Your task to perform on an android device: empty trash in google photos Image 0: 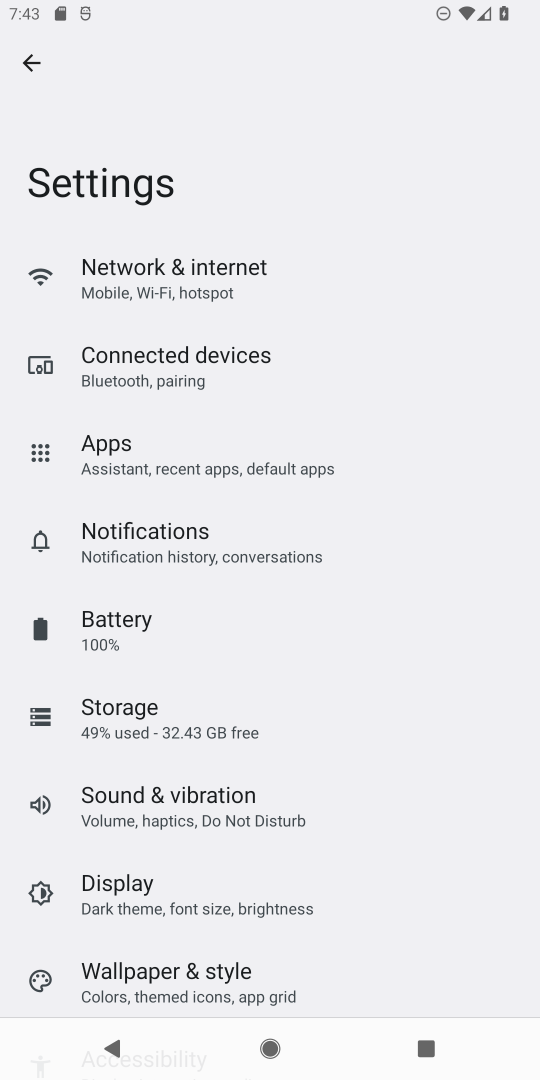
Step 0: press home button
Your task to perform on an android device: empty trash in google photos Image 1: 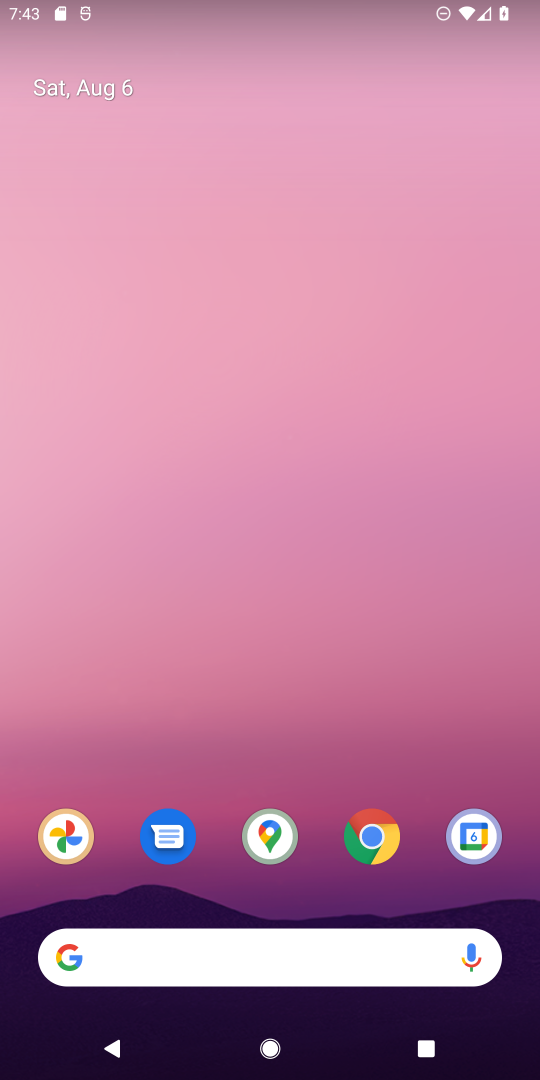
Step 1: click (55, 850)
Your task to perform on an android device: empty trash in google photos Image 2: 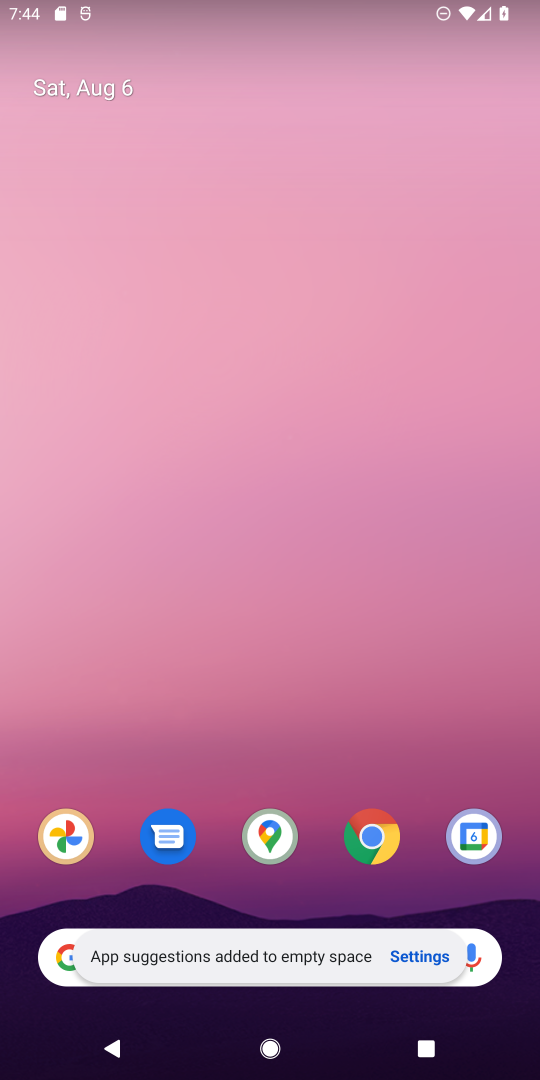
Step 2: click (59, 842)
Your task to perform on an android device: empty trash in google photos Image 3: 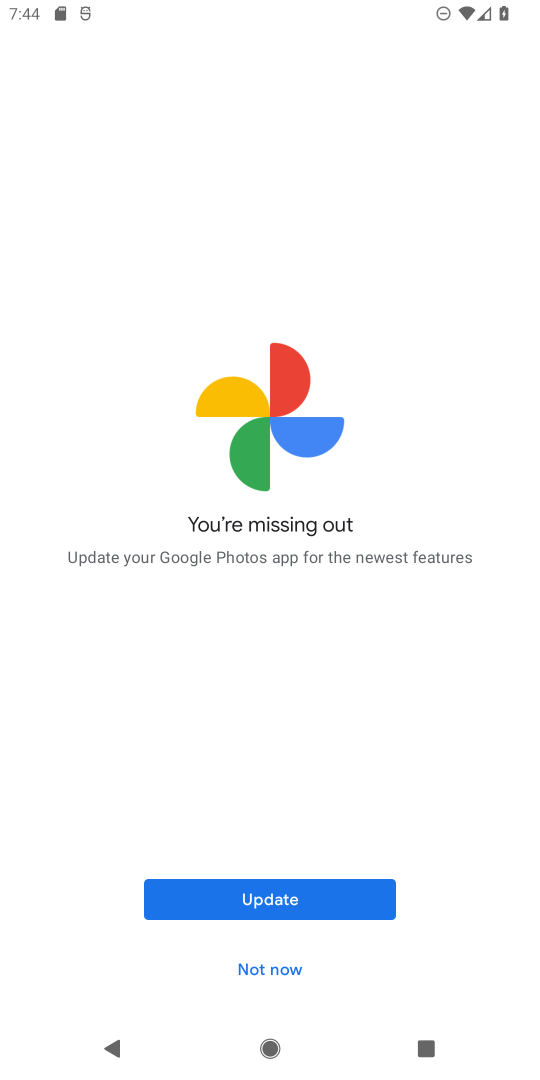
Step 3: click (245, 973)
Your task to perform on an android device: empty trash in google photos Image 4: 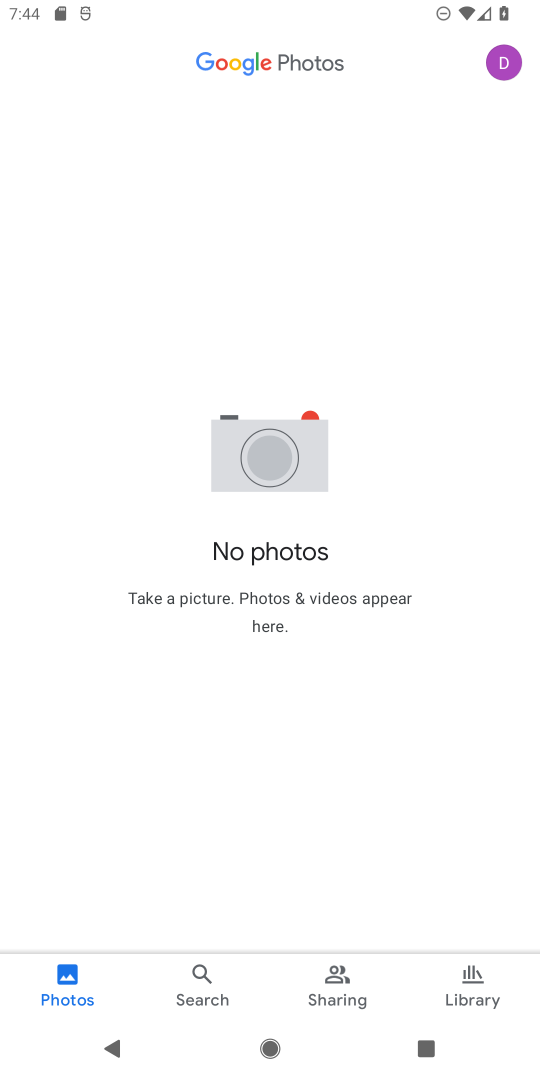
Step 4: click (504, 58)
Your task to perform on an android device: empty trash in google photos Image 5: 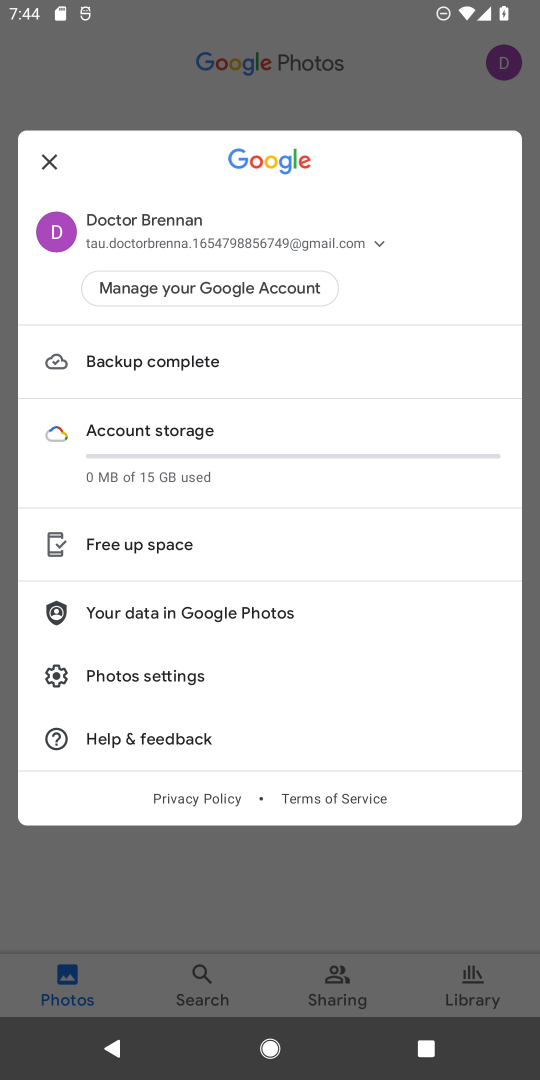
Step 5: click (156, 680)
Your task to perform on an android device: empty trash in google photos Image 6: 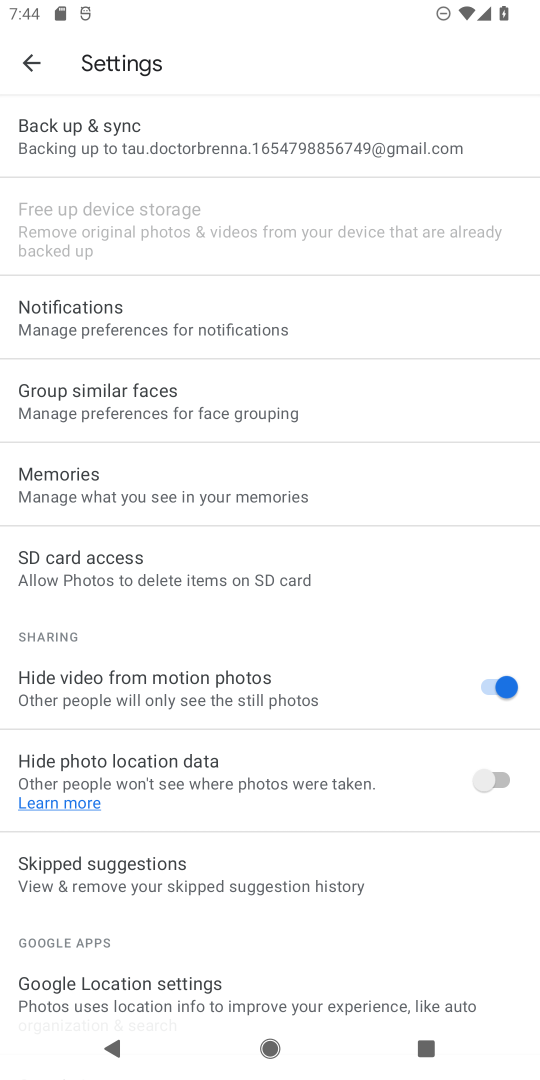
Step 6: task complete